Your task to perform on an android device: turn on location history Image 0: 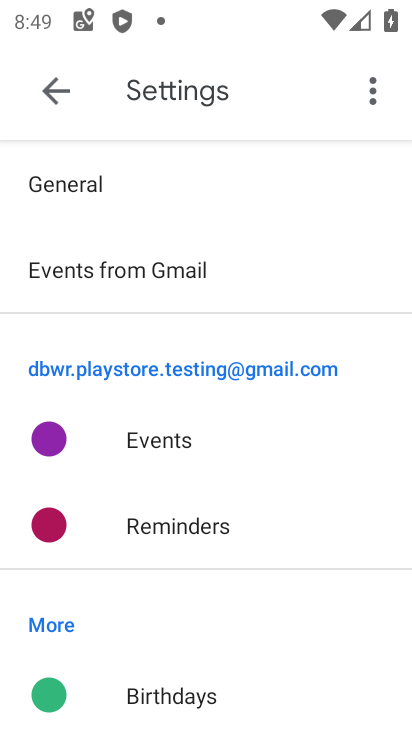
Step 0: press home button
Your task to perform on an android device: turn on location history Image 1: 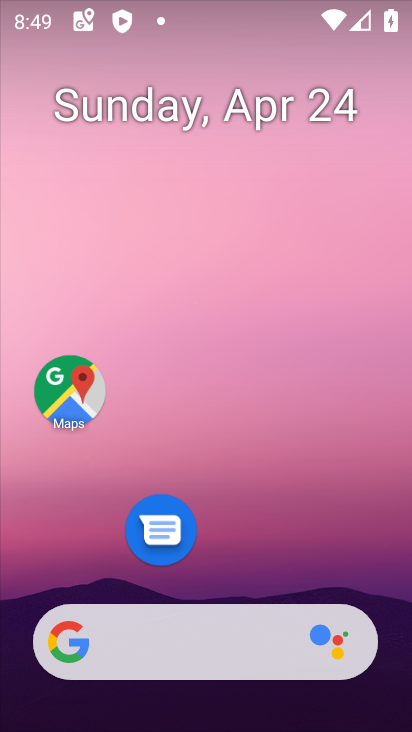
Step 1: drag from (226, 578) to (259, 140)
Your task to perform on an android device: turn on location history Image 2: 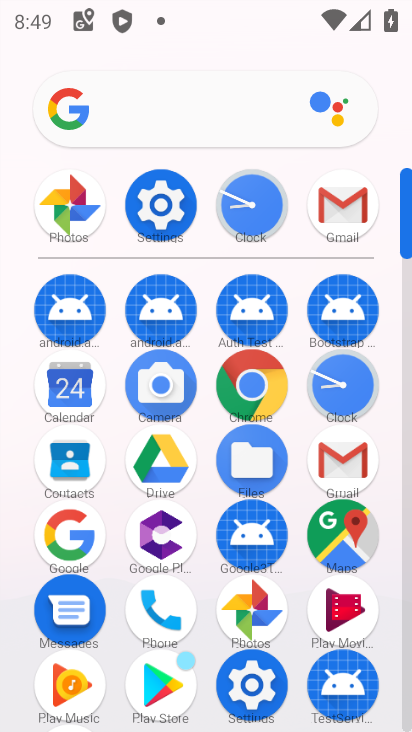
Step 2: click (176, 223)
Your task to perform on an android device: turn on location history Image 3: 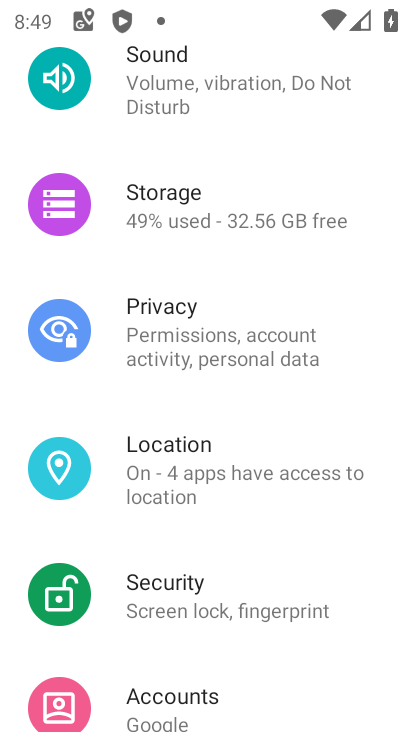
Step 3: click (167, 478)
Your task to perform on an android device: turn on location history Image 4: 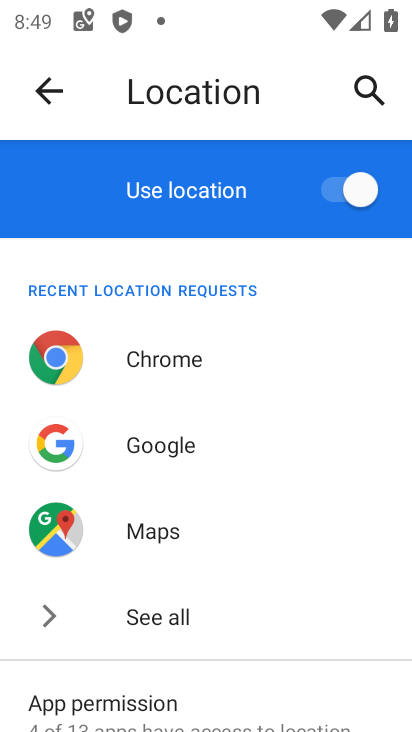
Step 4: drag from (132, 677) to (164, 13)
Your task to perform on an android device: turn on location history Image 5: 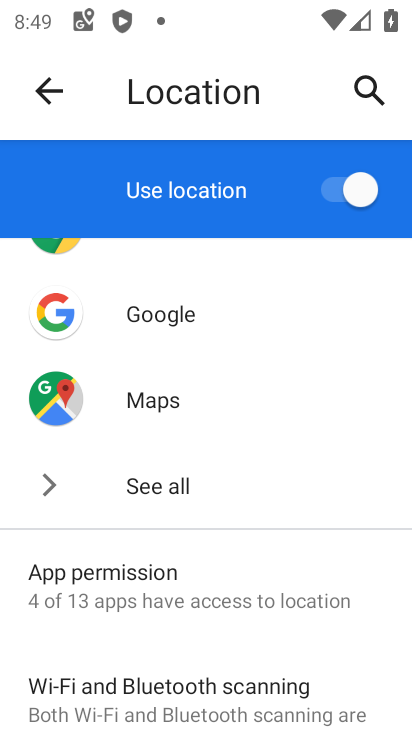
Step 5: drag from (205, 584) to (195, 128)
Your task to perform on an android device: turn on location history Image 6: 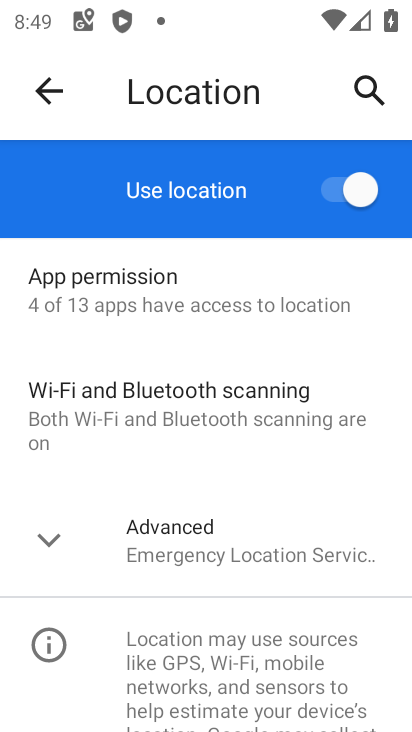
Step 6: click (224, 566)
Your task to perform on an android device: turn on location history Image 7: 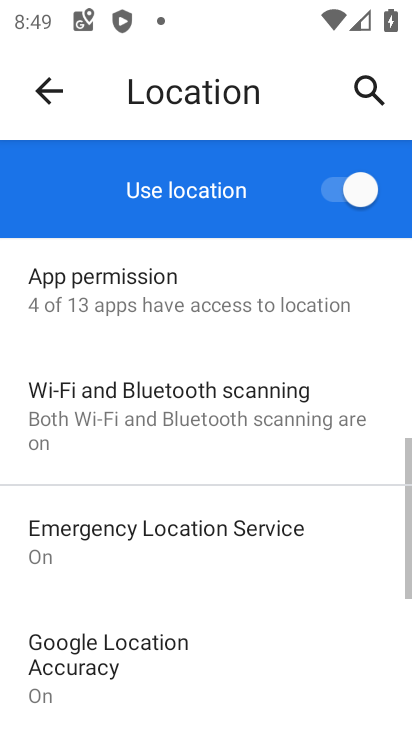
Step 7: drag from (224, 566) to (181, 192)
Your task to perform on an android device: turn on location history Image 8: 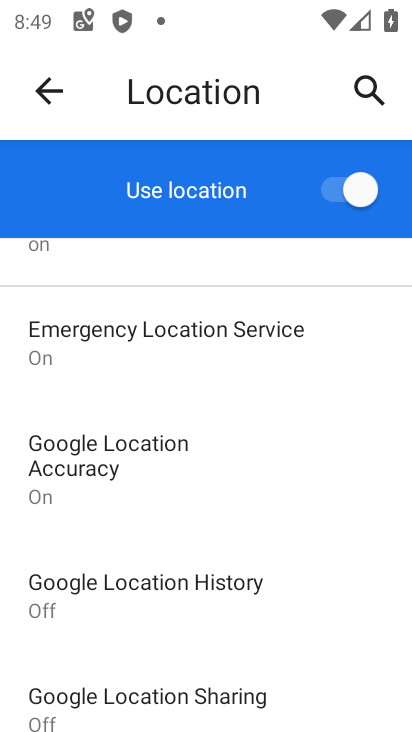
Step 8: click (99, 596)
Your task to perform on an android device: turn on location history Image 9: 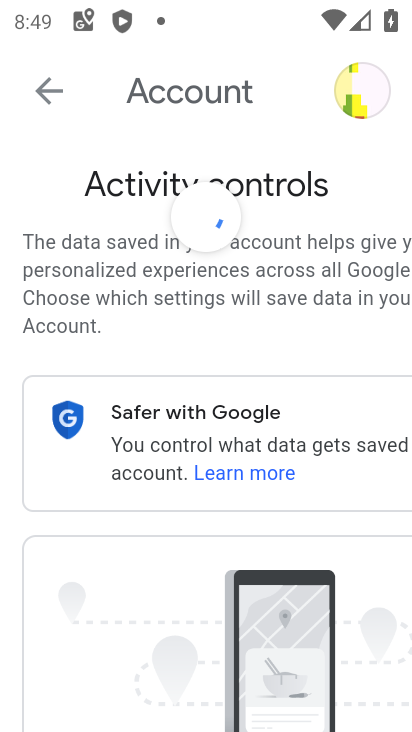
Step 9: drag from (110, 695) to (279, 19)
Your task to perform on an android device: turn on location history Image 10: 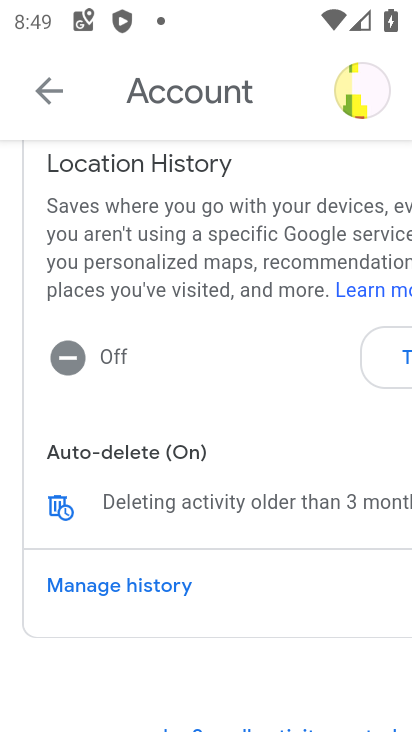
Step 10: click (371, 364)
Your task to perform on an android device: turn on location history Image 11: 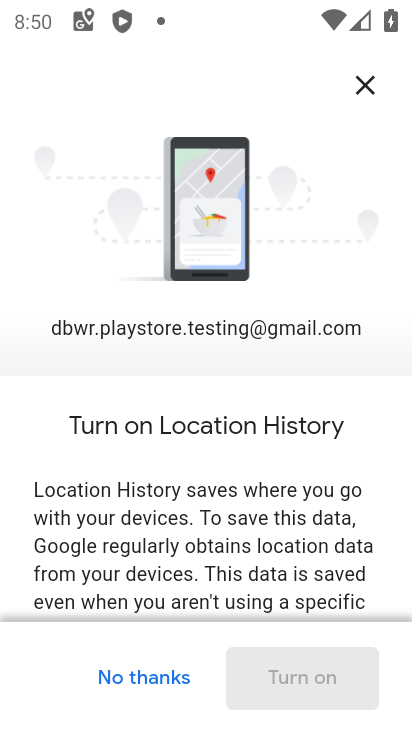
Step 11: drag from (137, 567) to (166, 236)
Your task to perform on an android device: turn on location history Image 12: 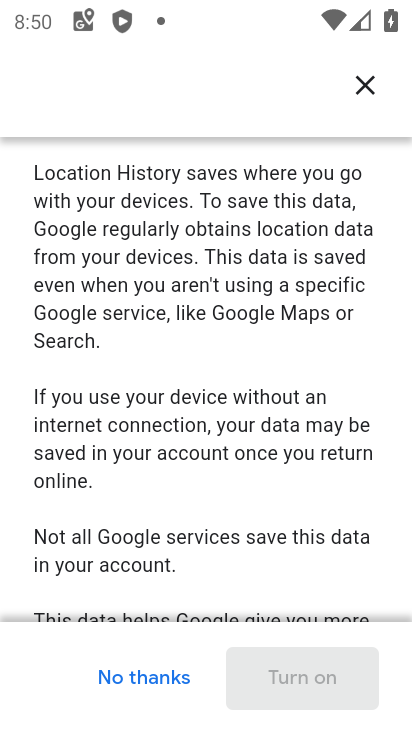
Step 12: drag from (184, 508) to (214, 66)
Your task to perform on an android device: turn on location history Image 13: 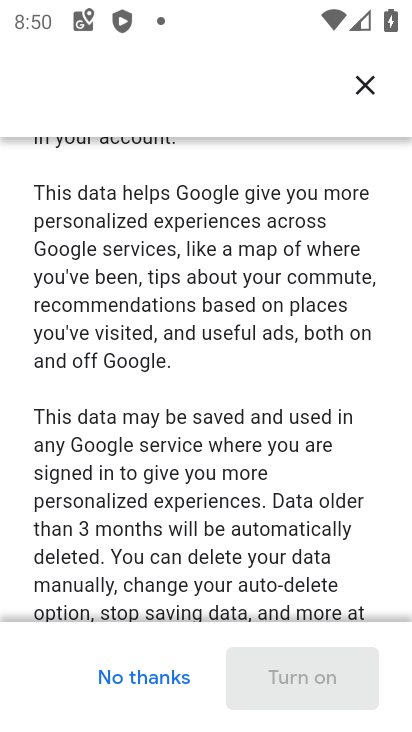
Step 13: drag from (183, 586) to (161, 248)
Your task to perform on an android device: turn on location history Image 14: 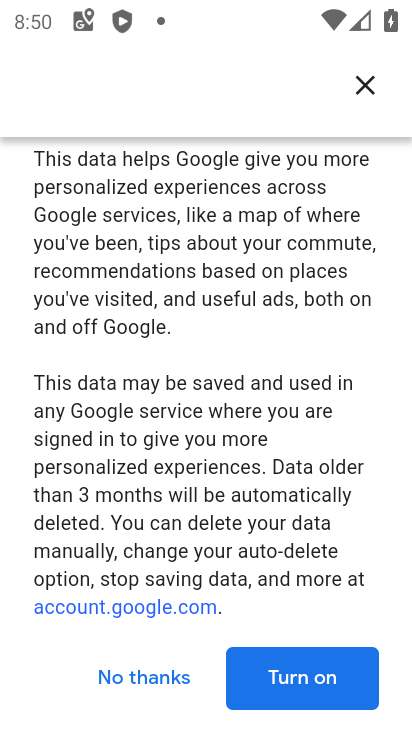
Step 14: click (330, 654)
Your task to perform on an android device: turn on location history Image 15: 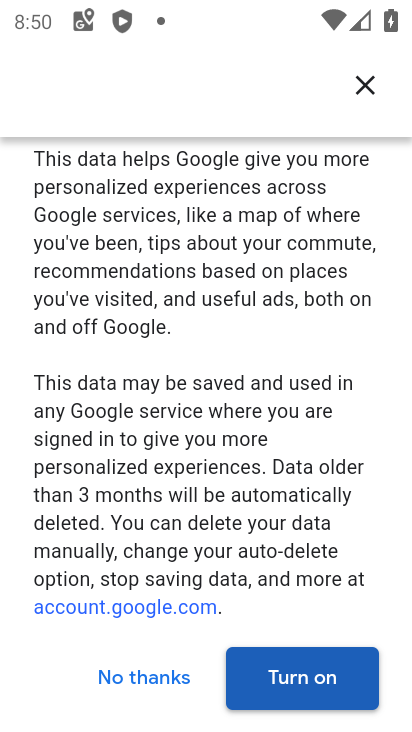
Step 15: click (313, 682)
Your task to perform on an android device: turn on location history Image 16: 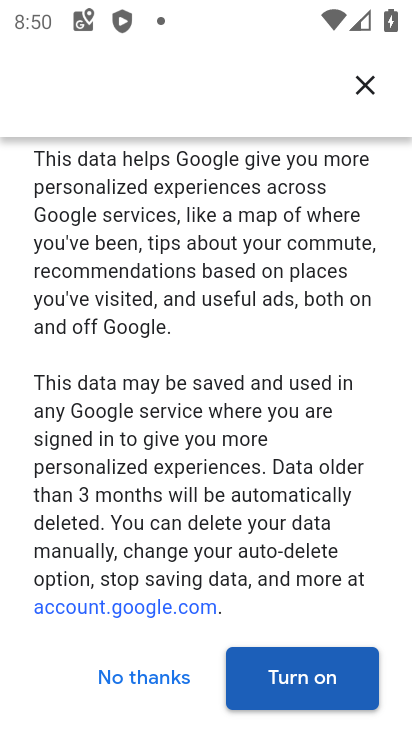
Step 16: click (313, 682)
Your task to perform on an android device: turn on location history Image 17: 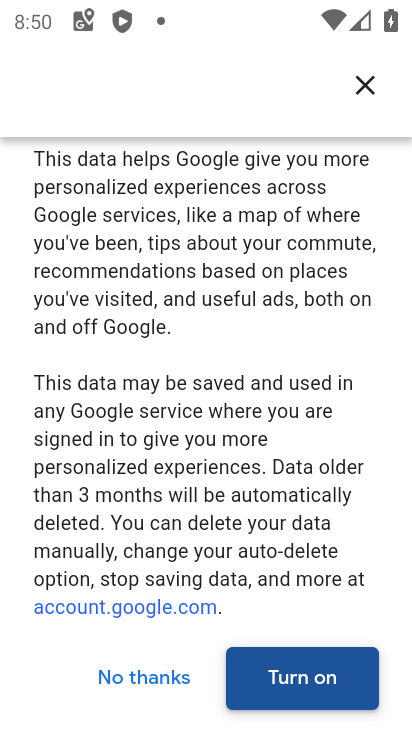
Step 17: click (313, 682)
Your task to perform on an android device: turn on location history Image 18: 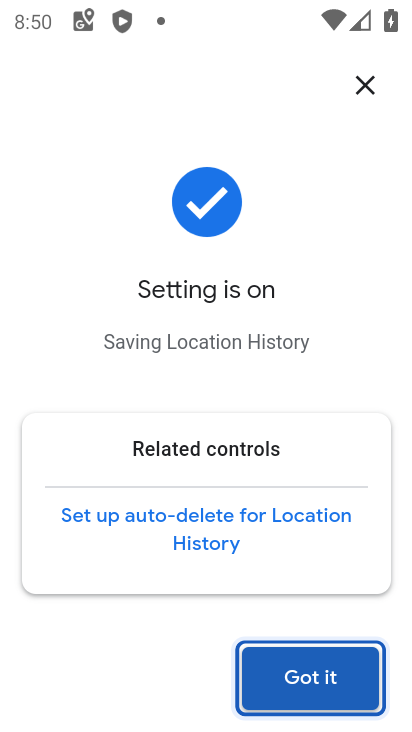
Step 18: click (329, 679)
Your task to perform on an android device: turn on location history Image 19: 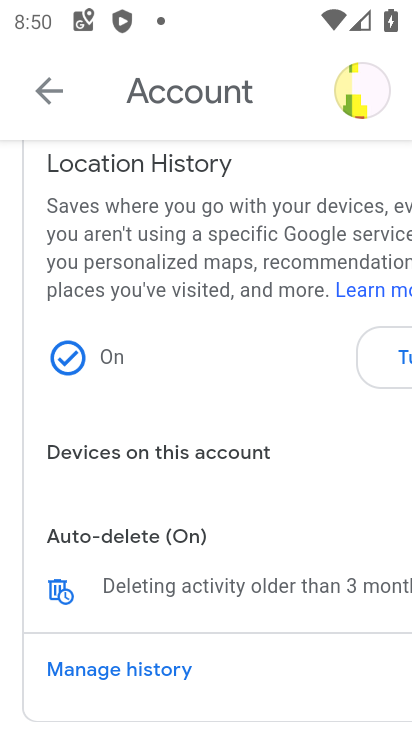
Step 19: task complete